Your task to perform on an android device: change your default location settings in chrome Image 0: 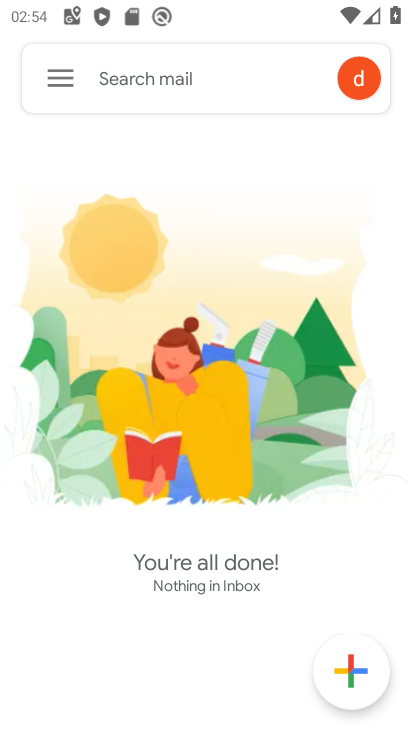
Step 0: press home button
Your task to perform on an android device: change your default location settings in chrome Image 1: 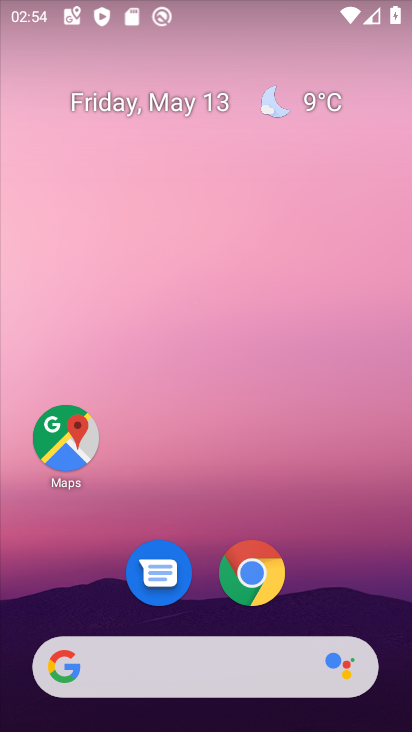
Step 1: click (253, 571)
Your task to perform on an android device: change your default location settings in chrome Image 2: 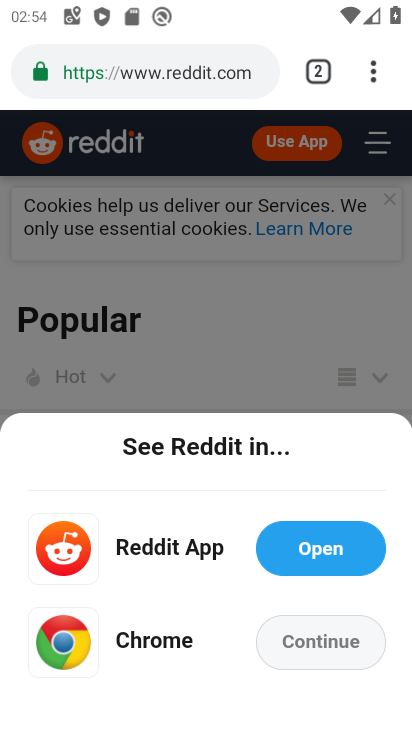
Step 2: click (373, 69)
Your task to perform on an android device: change your default location settings in chrome Image 3: 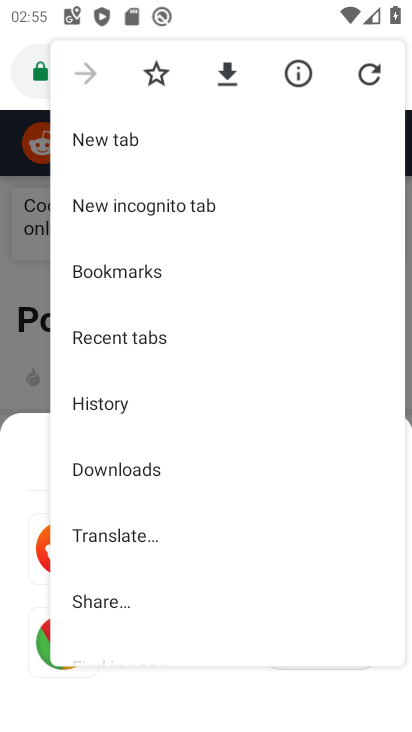
Step 3: drag from (184, 501) to (212, 385)
Your task to perform on an android device: change your default location settings in chrome Image 4: 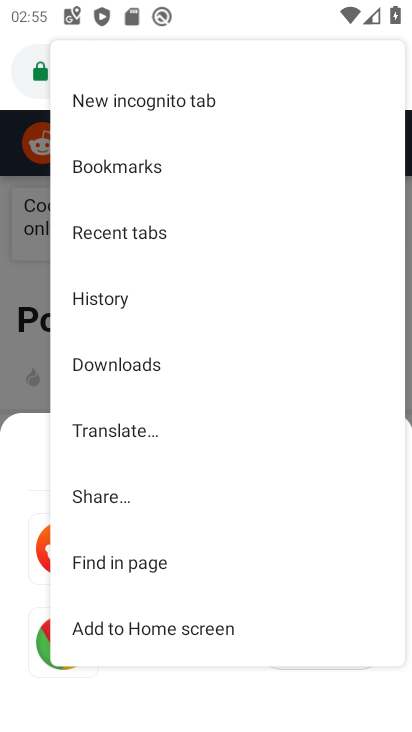
Step 4: drag from (174, 573) to (228, 451)
Your task to perform on an android device: change your default location settings in chrome Image 5: 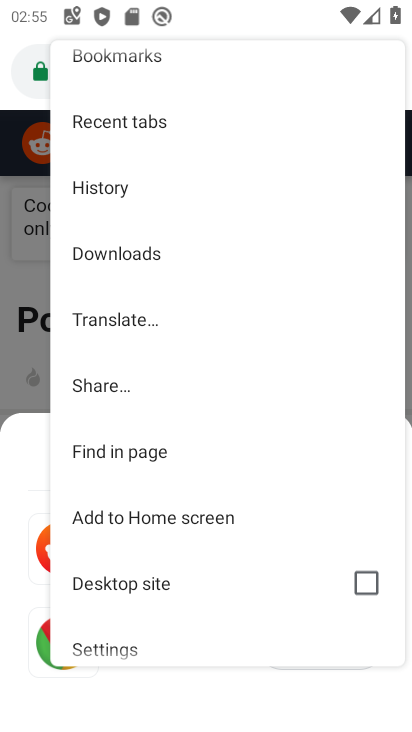
Step 5: drag from (156, 614) to (230, 475)
Your task to perform on an android device: change your default location settings in chrome Image 6: 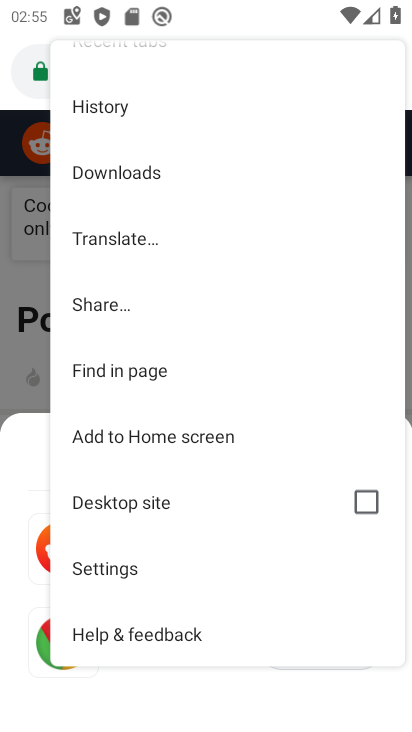
Step 6: click (125, 575)
Your task to perform on an android device: change your default location settings in chrome Image 7: 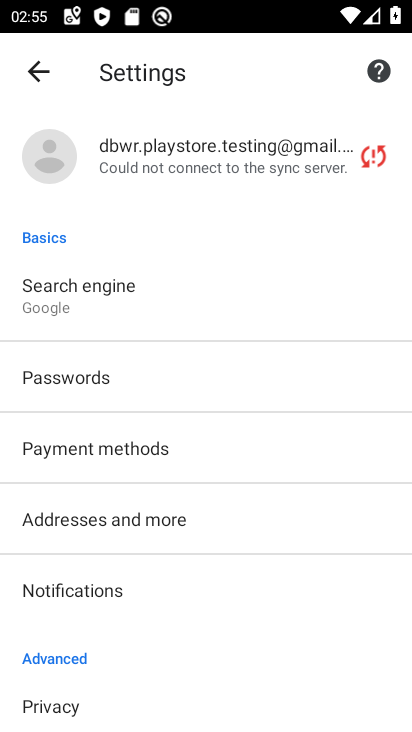
Step 7: drag from (153, 595) to (214, 497)
Your task to perform on an android device: change your default location settings in chrome Image 8: 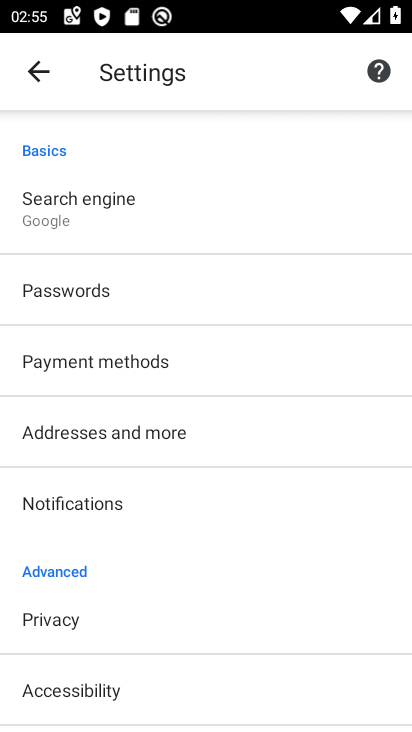
Step 8: drag from (165, 589) to (229, 467)
Your task to perform on an android device: change your default location settings in chrome Image 9: 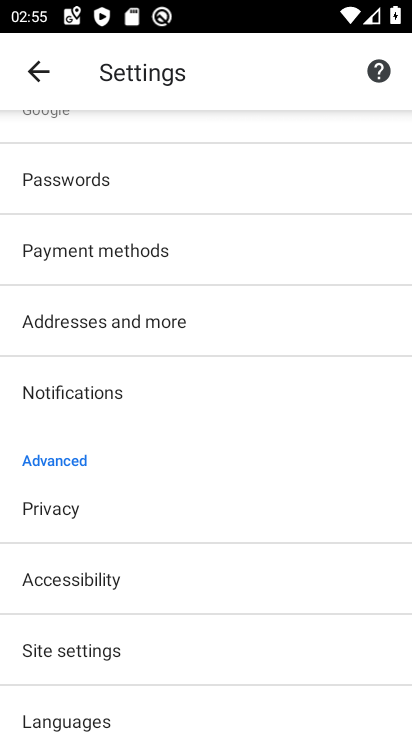
Step 9: click (76, 647)
Your task to perform on an android device: change your default location settings in chrome Image 10: 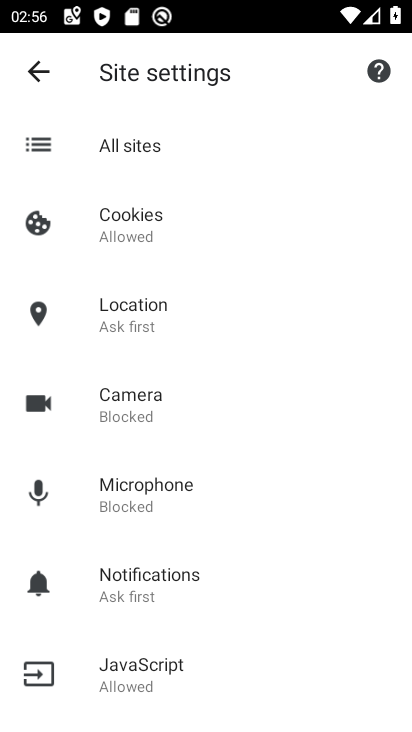
Step 10: click (129, 316)
Your task to perform on an android device: change your default location settings in chrome Image 11: 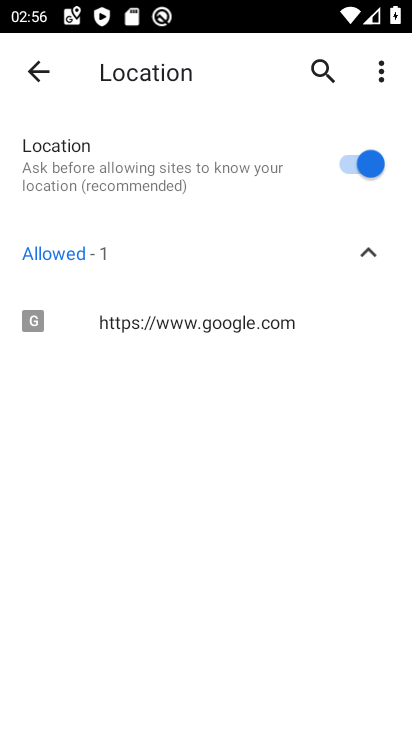
Step 11: click (374, 163)
Your task to perform on an android device: change your default location settings in chrome Image 12: 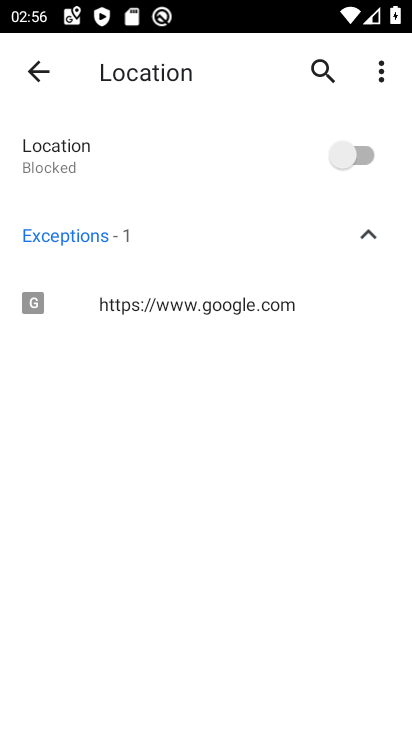
Step 12: task complete